Your task to perform on an android device: move a message to another label in the gmail app Image 0: 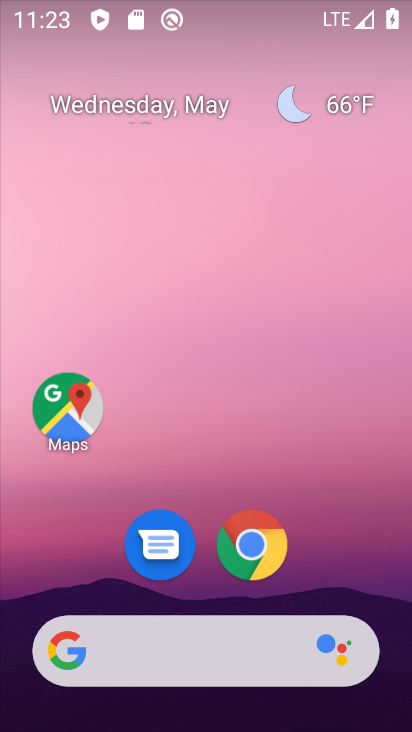
Step 0: drag from (305, 714) to (302, 5)
Your task to perform on an android device: move a message to another label in the gmail app Image 1: 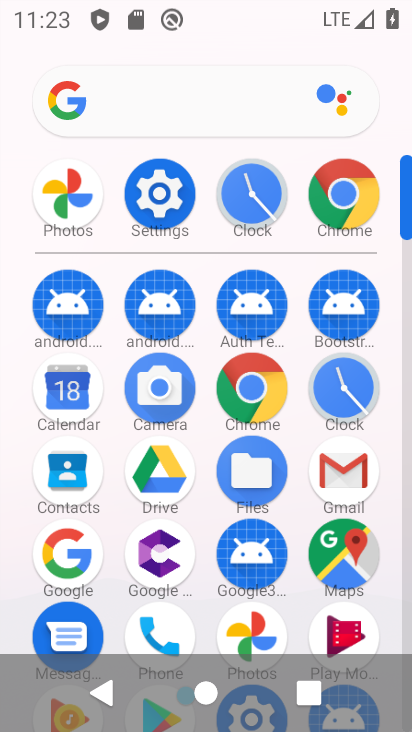
Step 1: click (325, 466)
Your task to perform on an android device: move a message to another label in the gmail app Image 2: 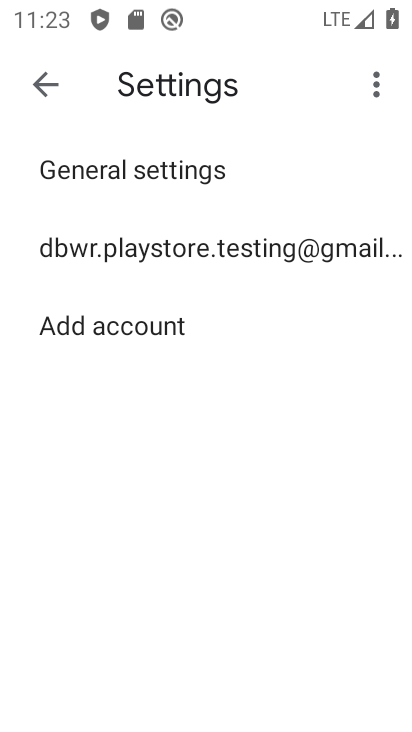
Step 2: click (331, 247)
Your task to perform on an android device: move a message to another label in the gmail app Image 3: 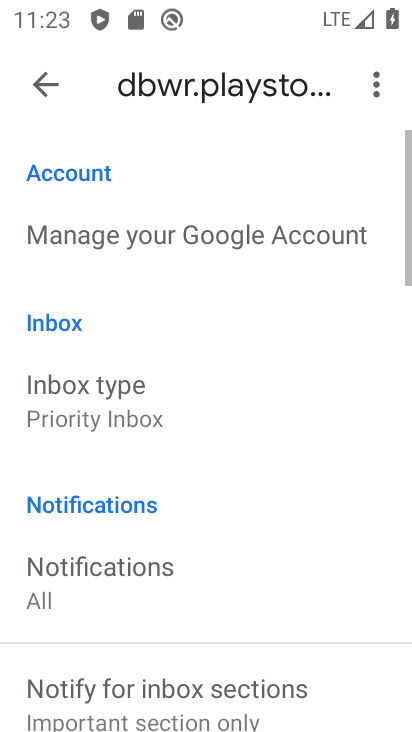
Step 3: click (56, 66)
Your task to perform on an android device: move a message to another label in the gmail app Image 4: 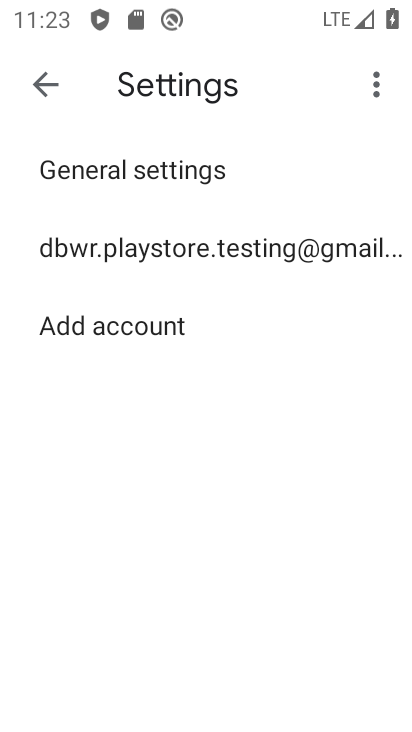
Step 4: click (51, 83)
Your task to perform on an android device: move a message to another label in the gmail app Image 5: 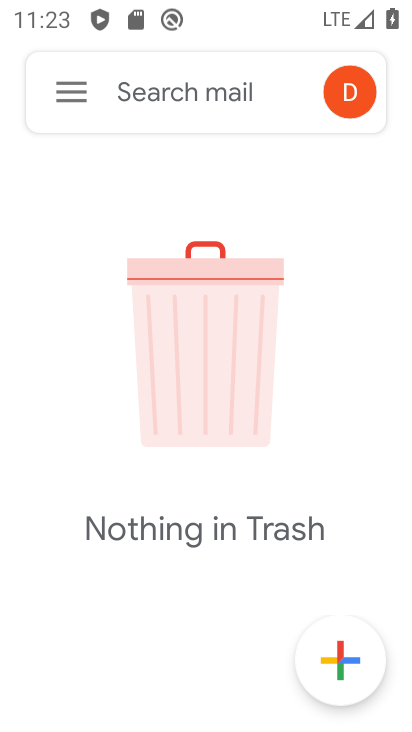
Step 5: click (51, 83)
Your task to perform on an android device: move a message to another label in the gmail app Image 6: 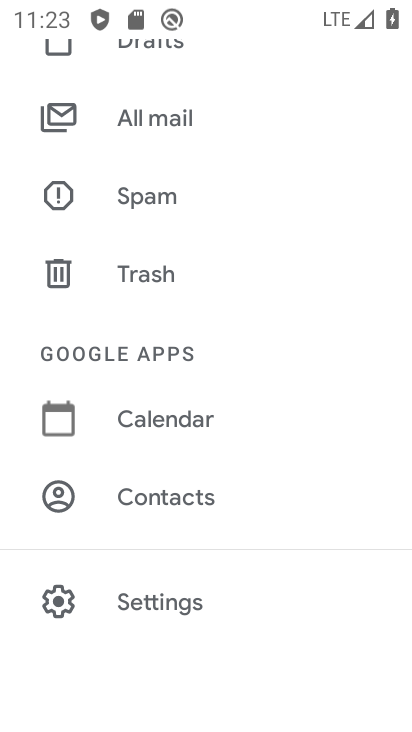
Step 6: click (260, 105)
Your task to perform on an android device: move a message to another label in the gmail app Image 7: 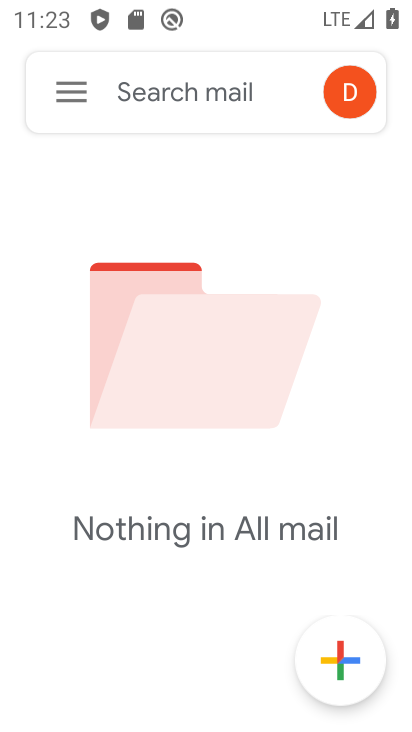
Step 7: task complete